Your task to perform on an android device: change the clock display to digital Image 0: 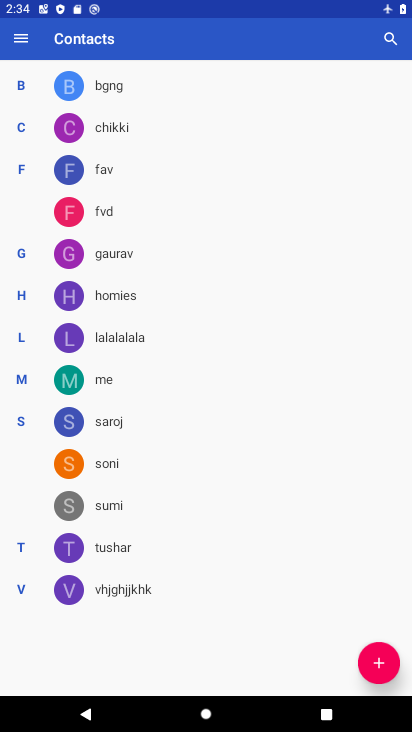
Step 0: press back button
Your task to perform on an android device: change the clock display to digital Image 1: 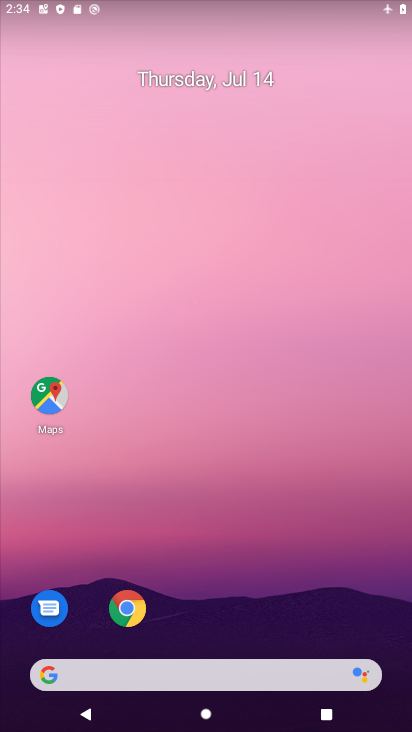
Step 1: drag from (250, 617) to (325, 13)
Your task to perform on an android device: change the clock display to digital Image 2: 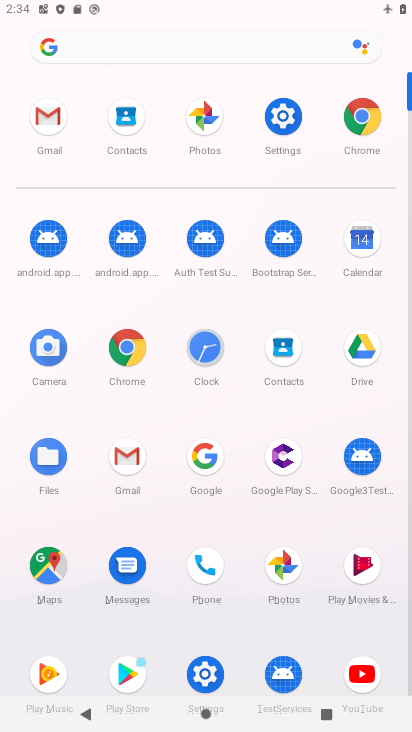
Step 2: click (208, 349)
Your task to perform on an android device: change the clock display to digital Image 3: 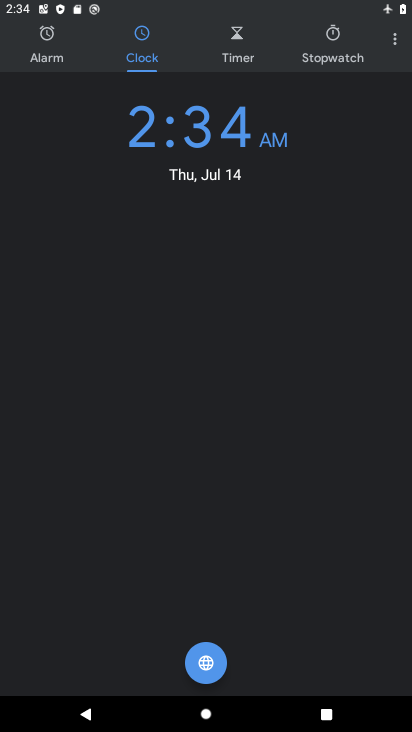
Step 3: click (385, 41)
Your task to perform on an android device: change the clock display to digital Image 4: 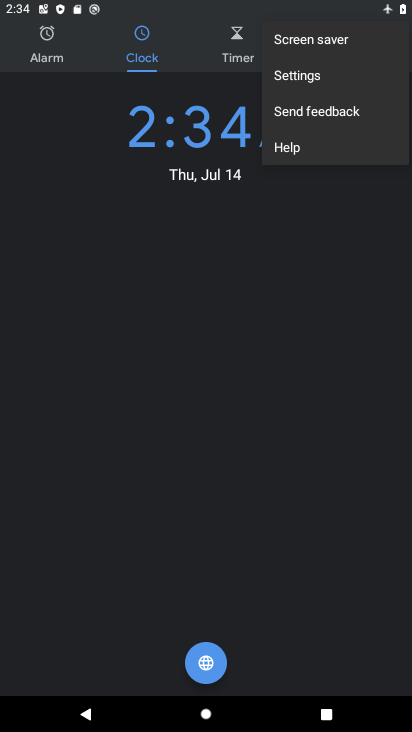
Step 4: click (324, 76)
Your task to perform on an android device: change the clock display to digital Image 5: 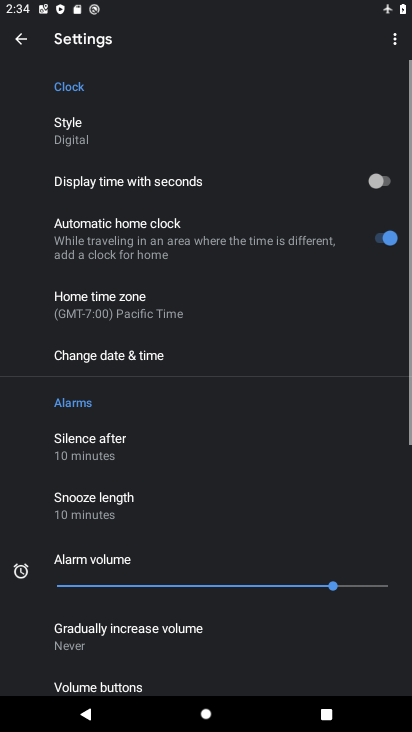
Step 5: click (110, 126)
Your task to perform on an android device: change the clock display to digital Image 6: 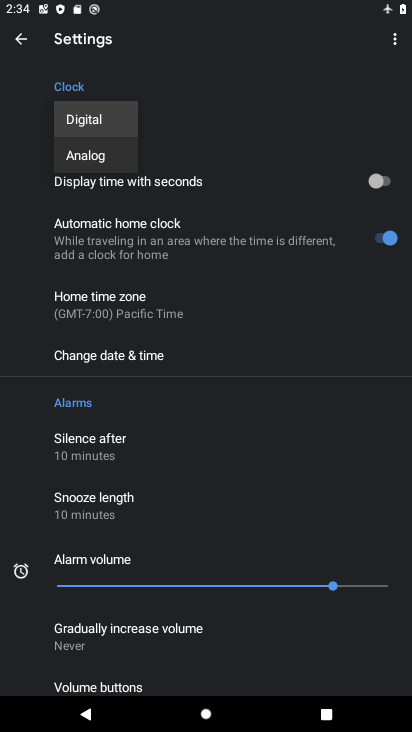
Step 6: click (103, 127)
Your task to perform on an android device: change the clock display to digital Image 7: 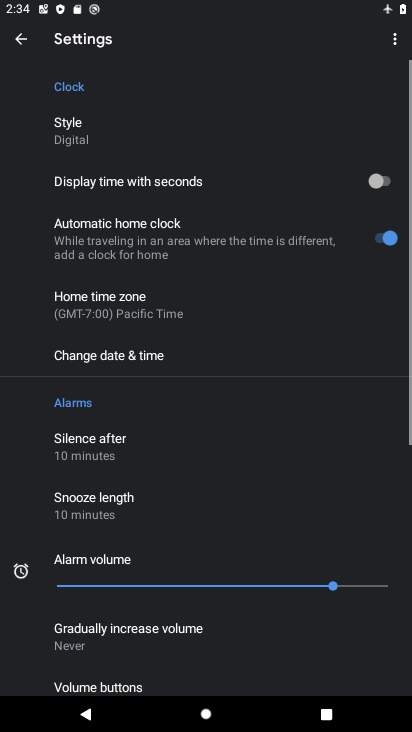
Step 7: task complete